Your task to perform on an android device: Search for Italian restaurants on Maps Image 0: 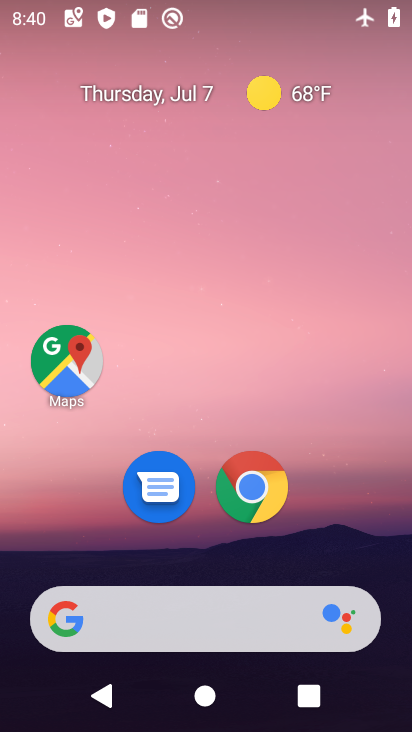
Step 0: click (55, 368)
Your task to perform on an android device: Search for Italian restaurants on Maps Image 1: 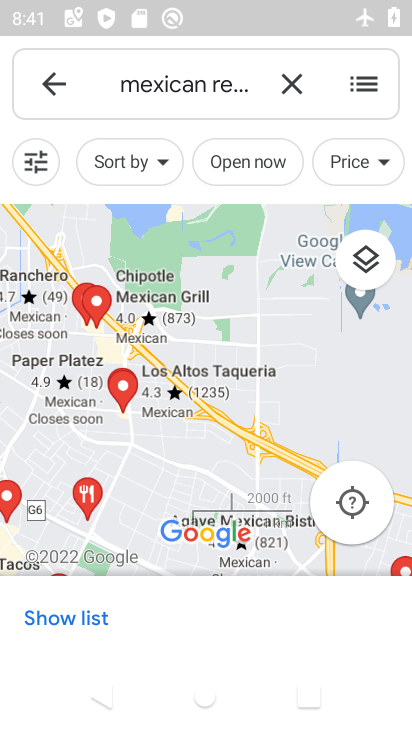
Step 1: click (297, 88)
Your task to perform on an android device: Search for Italian restaurants on Maps Image 2: 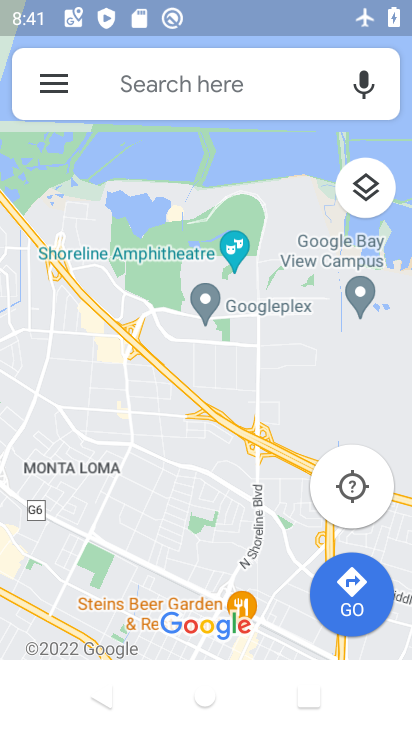
Step 2: click (209, 84)
Your task to perform on an android device: Search for Italian restaurants on Maps Image 3: 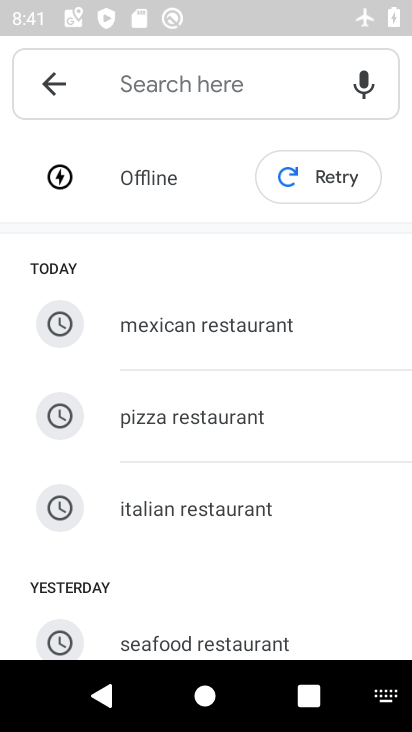
Step 3: click (203, 502)
Your task to perform on an android device: Search for Italian restaurants on Maps Image 4: 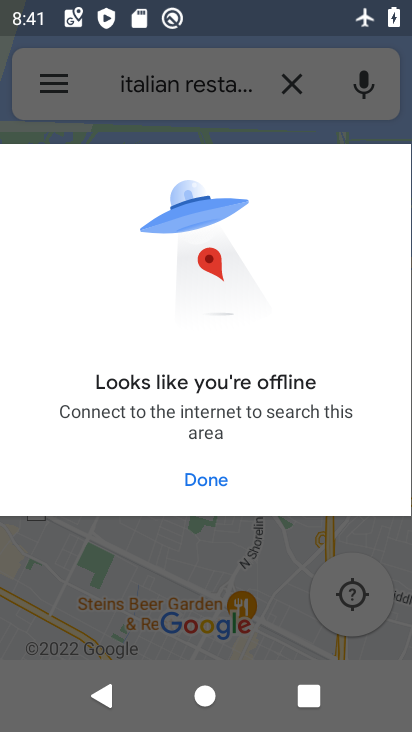
Step 4: click (216, 477)
Your task to perform on an android device: Search for Italian restaurants on Maps Image 5: 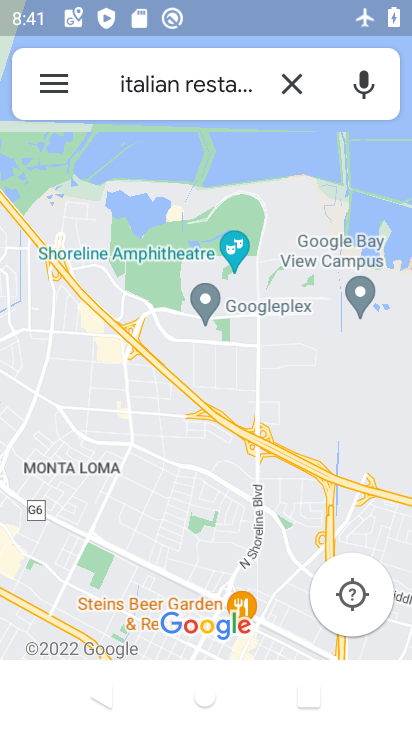
Step 5: task complete